Your task to perform on an android device: Find coffee shops on Maps Image 0: 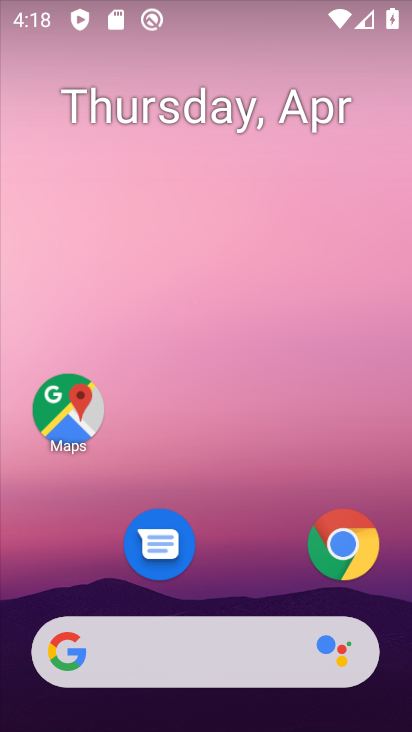
Step 0: drag from (304, 640) to (380, 271)
Your task to perform on an android device: Find coffee shops on Maps Image 1: 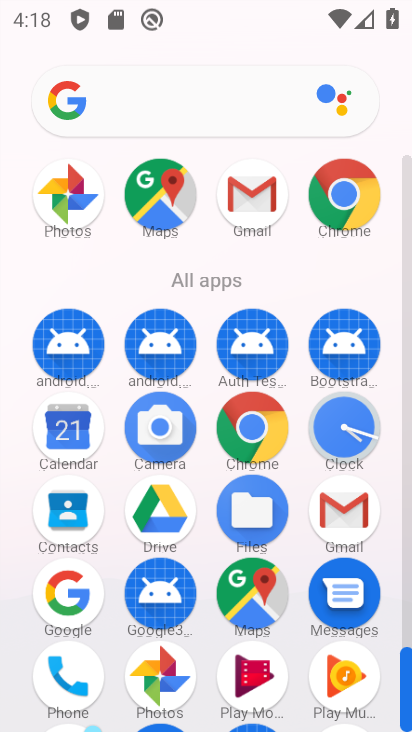
Step 1: click (277, 590)
Your task to perform on an android device: Find coffee shops on Maps Image 2: 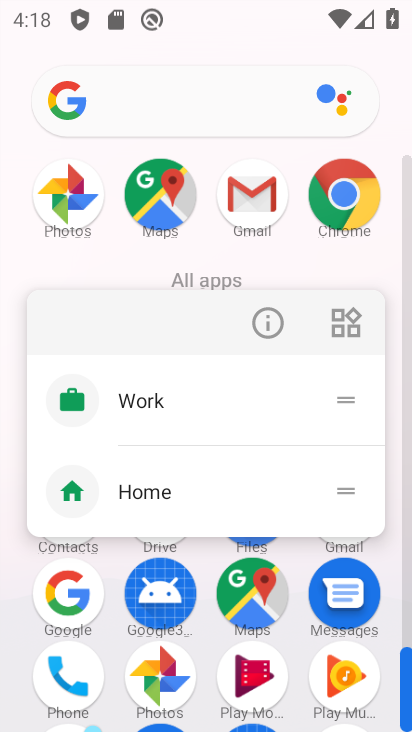
Step 2: click (242, 579)
Your task to perform on an android device: Find coffee shops on Maps Image 3: 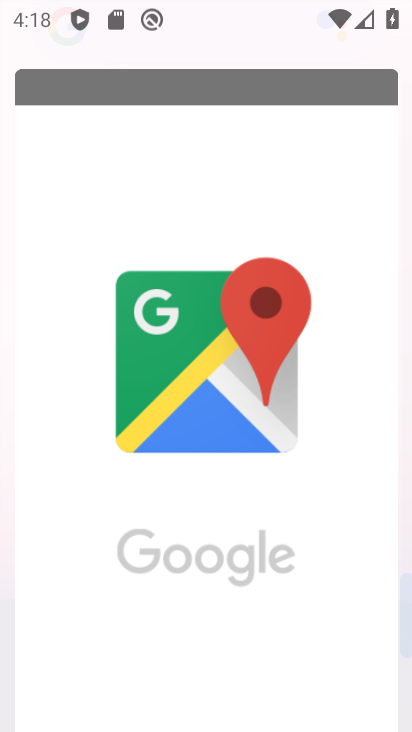
Step 3: click (244, 570)
Your task to perform on an android device: Find coffee shops on Maps Image 4: 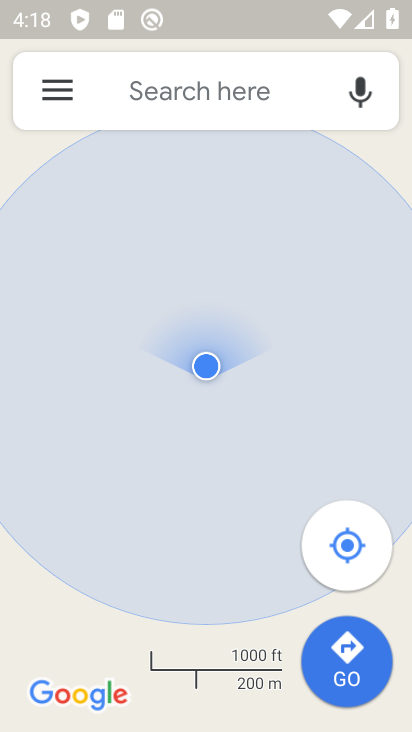
Step 4: click (248, 86)
Your task to perform on an android device: Find coffee shops on Maps Image 5: 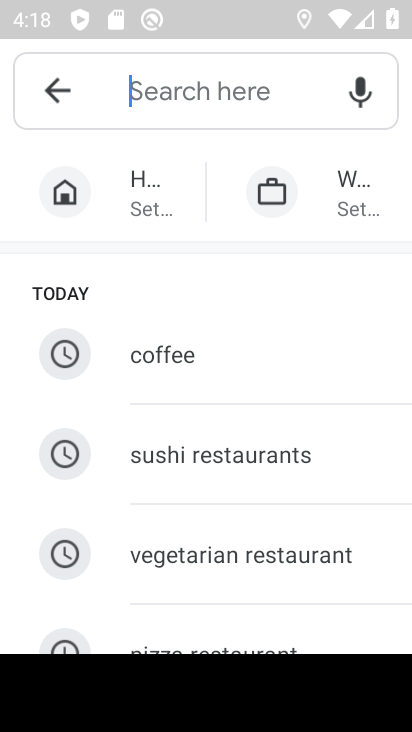
Step 5: type "co"
Your task to perform on an android device: Find coffee shops on Maps Image 6: 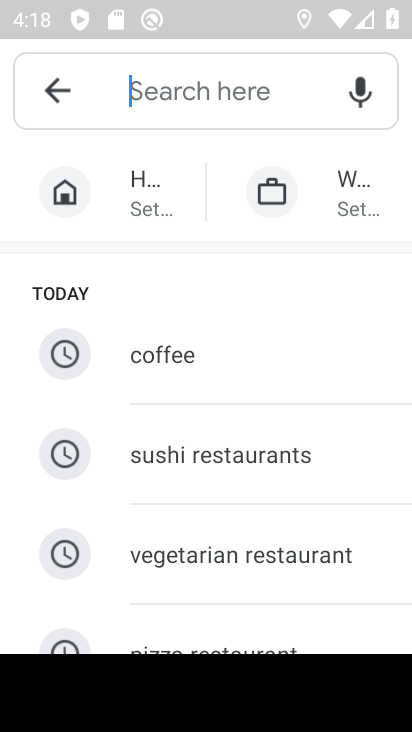
Step 6: click (349, 400)
Your task to perform on an android device: Find coffee shops on Maps Image 7: 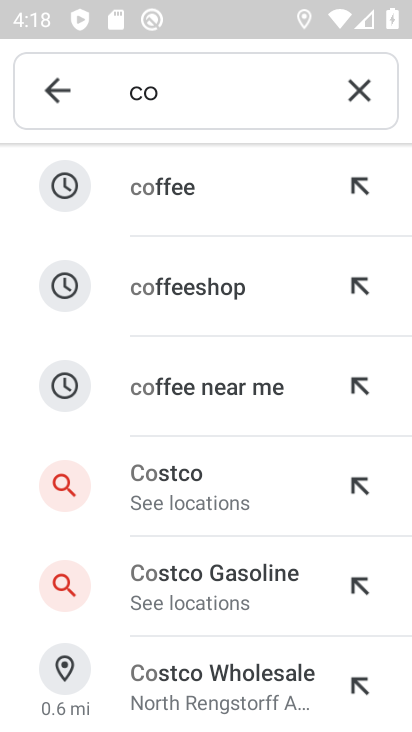
Step 7: click (251, 314)
Your task to perform on an android device: Find coffee shops on Maps Image 8: 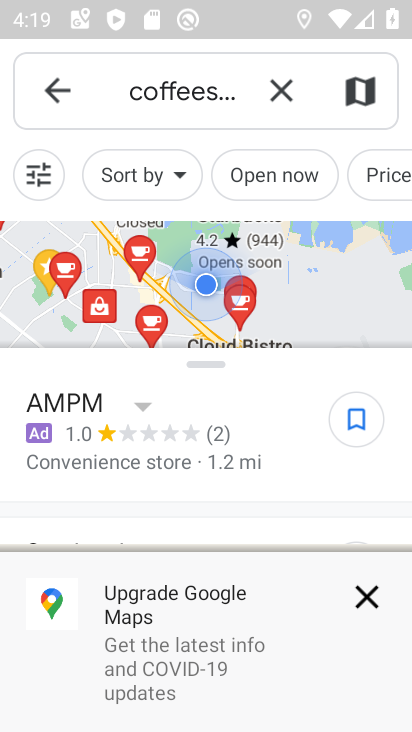
Step 8: click (361, 597)
Your task to perform on an android device: Find coffee shops on Maps Image 9: 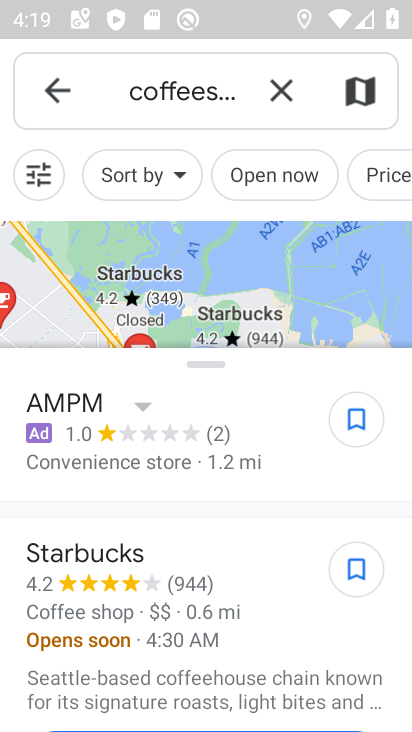
Step 9: task complete